Your task to perform on an android device: Show me popular games on the Play Store Image 0: 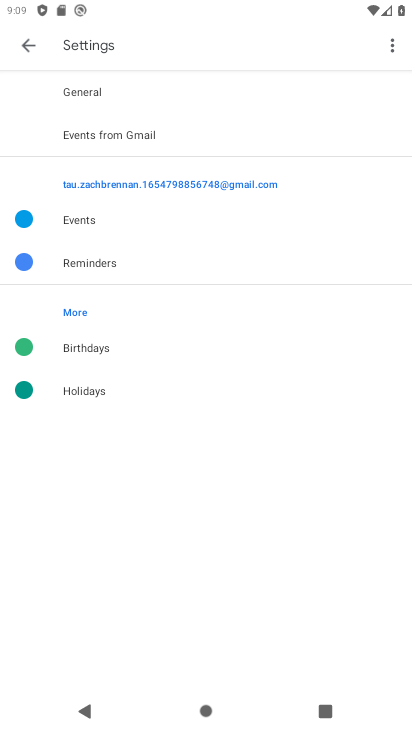
Step 0: press home button
Your task to perform on an android device: Show me popular games on the Play Store Image 1: 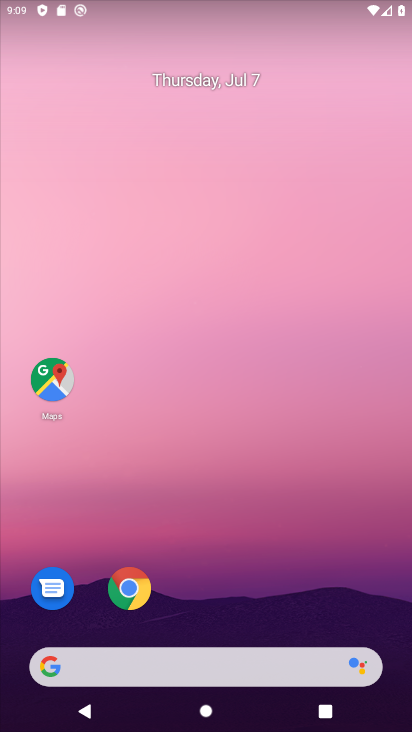
Step 1: drag from (150, 636) to (197, 105)
Your task to perform on an android device: Show me popular games on the Play Store Image 2: 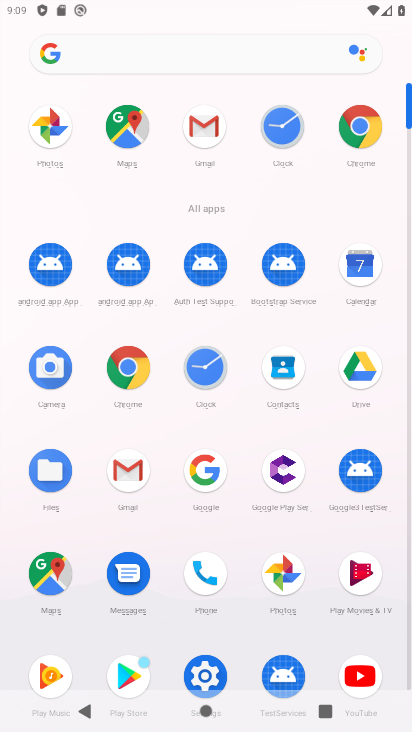
Step 2: click (120, 665)
Your task to perform on an android device: Show me popular games on the Play Store Image 3: 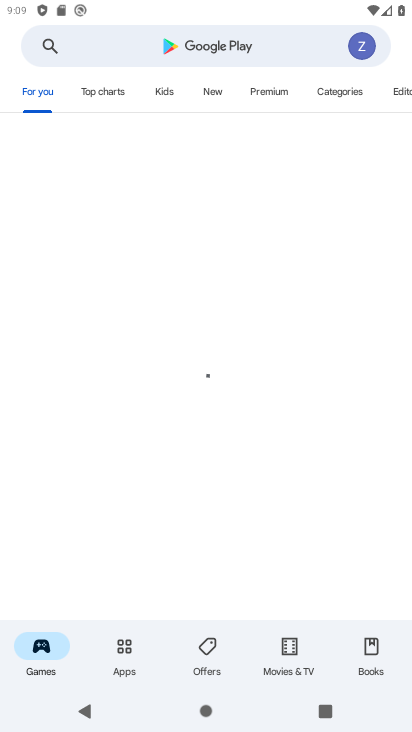
Step 3: click (120, 665)
Your task to perform on an android device: Show me popular games on the Play Store Image 4: 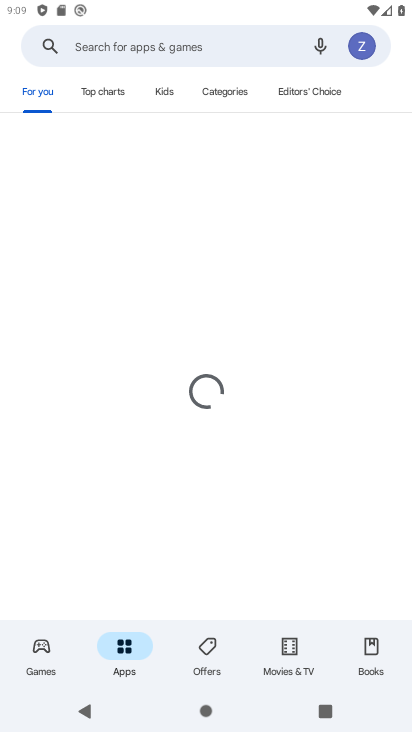
Step 4: click (49, 643)
Your task to perform on an android device: Show me popular games on the Play Store Image 5: 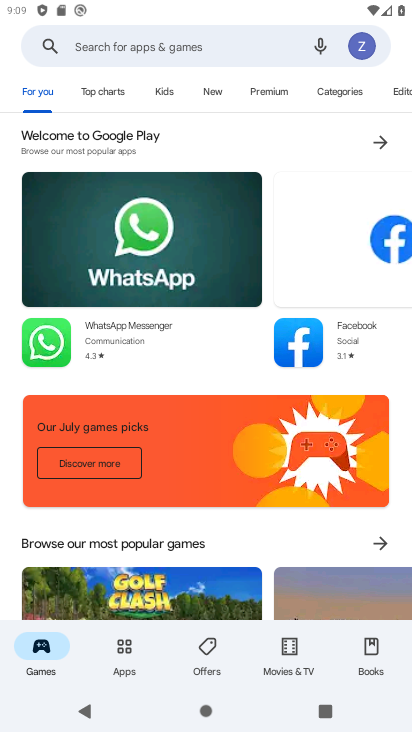
Step 5: click (112, 99)
Your task to perform on an android device: Show me popular games on the Play Store Image 6: 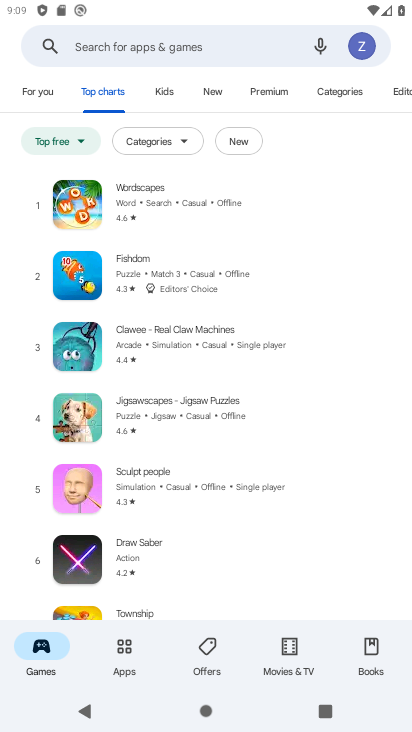
Step 6: task complete